Your task to perform on an android device: Open Google Chrome and open the bookmarks view Image 0: 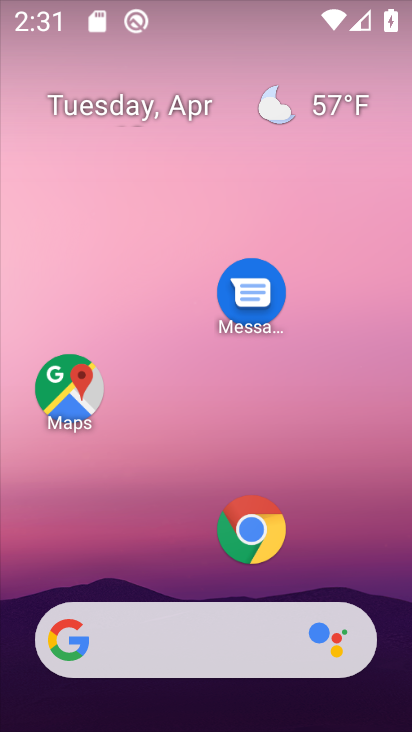
Step 0: click (183, 205)
Your task to perform on an android device: Open Google Chrome and open the bookmarks view Image 1: 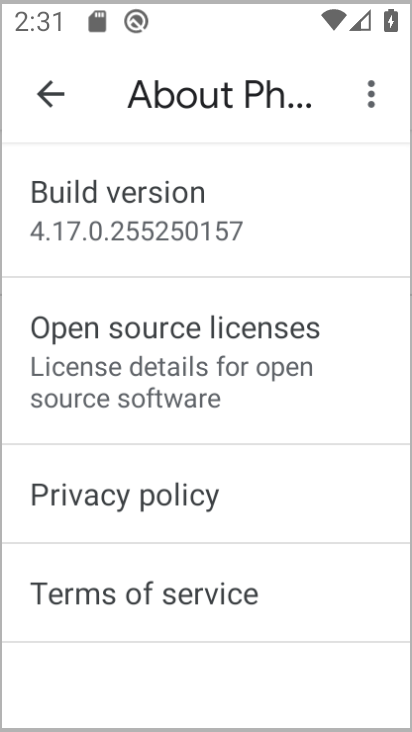
Step 1: press home button
Your task to perform on an android device: Open Google Chrome and open the bookmarks view Image 2: 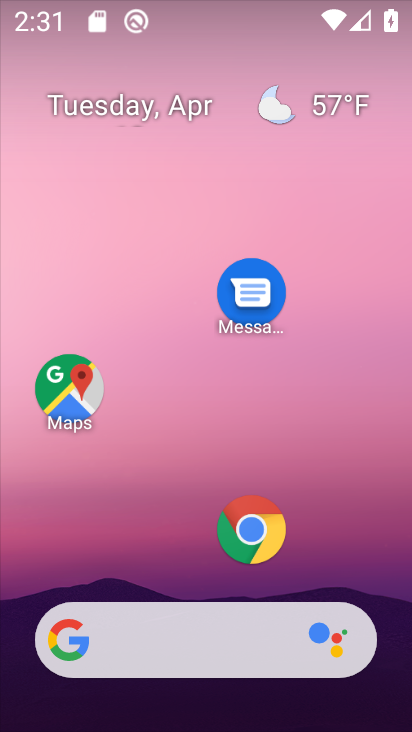
Step 2: click (253, 532)
Your task to perform on an android device: Open Google Chrome and open the bookmarks view Image 3: 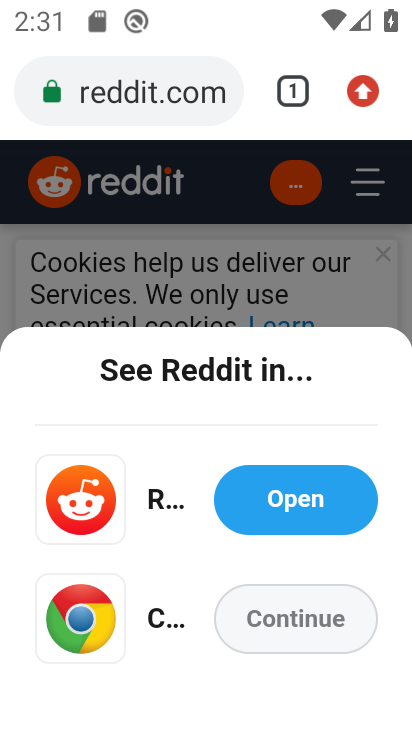
Step 3: click (361, 89)
Your task to perform on an android device: Open Google Chrome and open the bookmarks view Image 4: 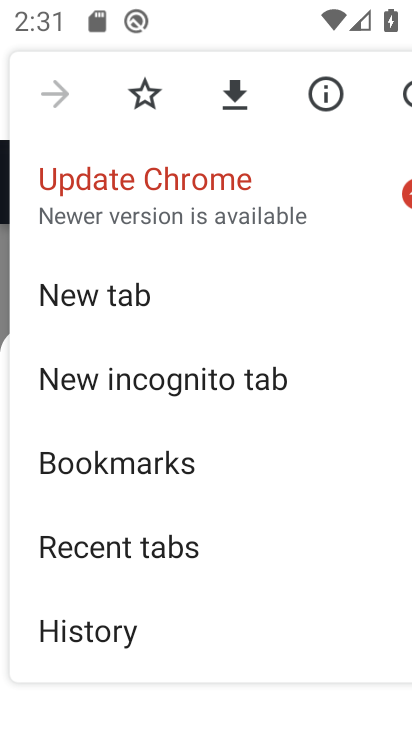
Step 4: click (225, 462)
Your task to perform on an android device: Open Google Chrome and open the bookmarks view Image 5: 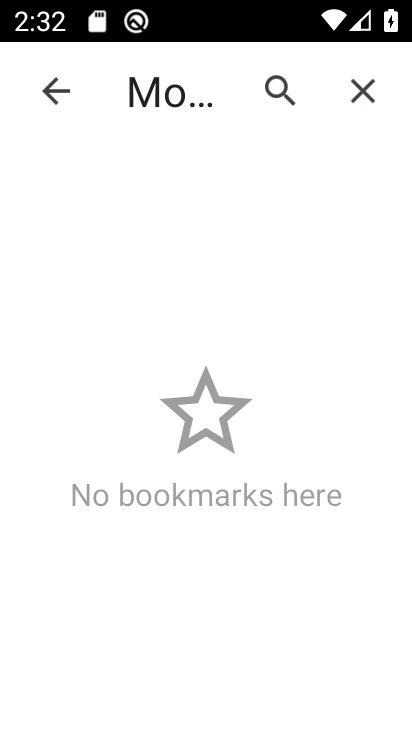
Step 5: task complete